Your task to perform on an android device: add a label to a message in the gmail app Image 0: 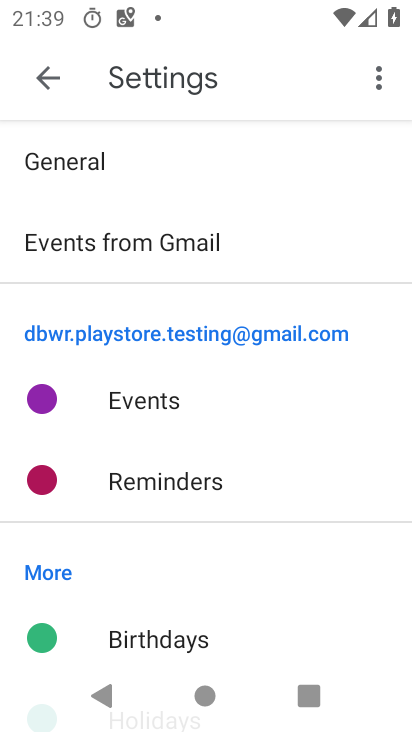
Step 0: press home button
Your task to perform on an android device: add a label to a message in the gmail app Image 1: 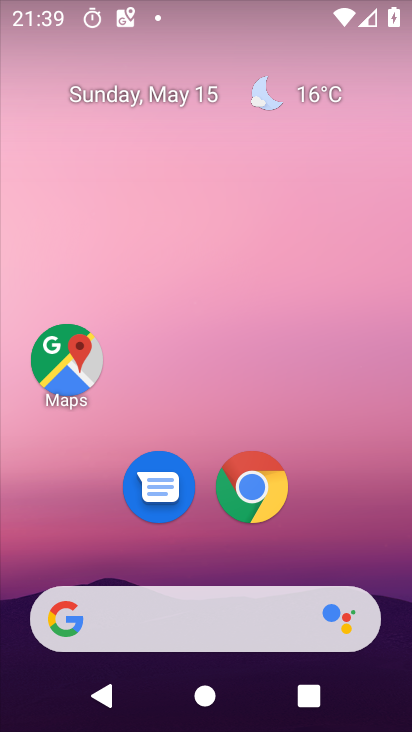
Step 1: drag from (388, 620) to (350, 264)
Your task to perform on an android device: add a label to a message in the gmail app Image 2: 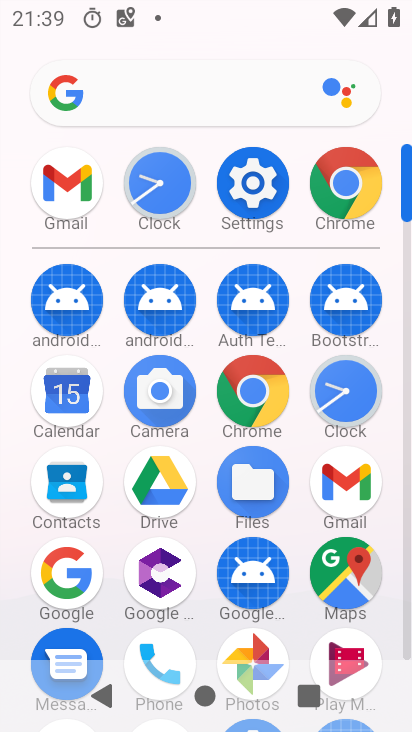
Step 2: click (342, 489)
Your task to perform on an android device: add a label to a message in the gmail app Image 3: 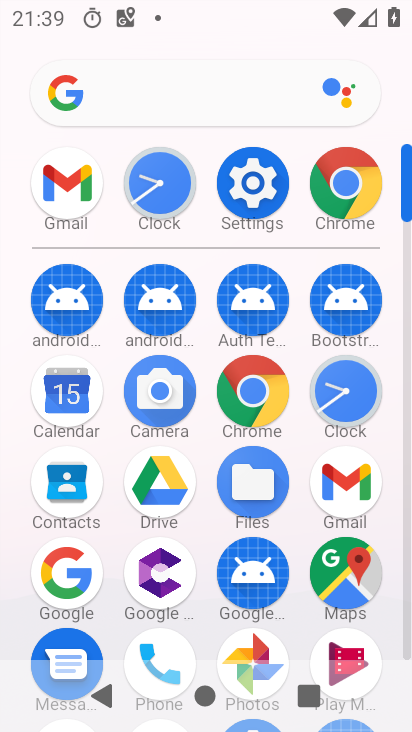
Step 3: click (338, 483)
Your task to perform on an android device: add a label to a message in the gmail app Image 4: 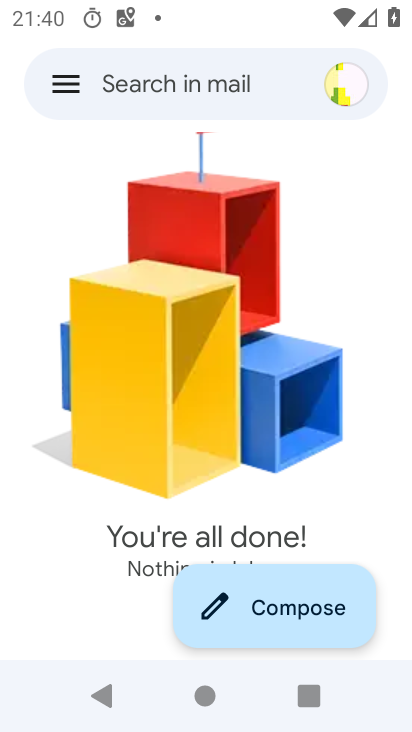
Step 4: click (69, 81)
Your task to perform on an android device: add a label to a message in the gmail app Image 5: 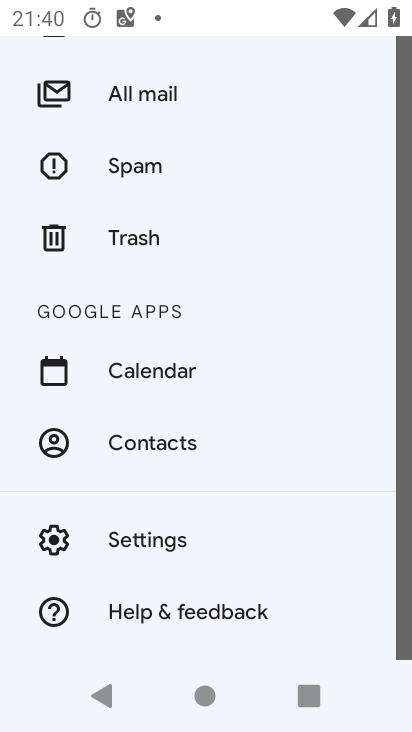
Step 5: click (114, 83)
Your task to perform on an android device: add a label to a message in the gmail app Image 6: 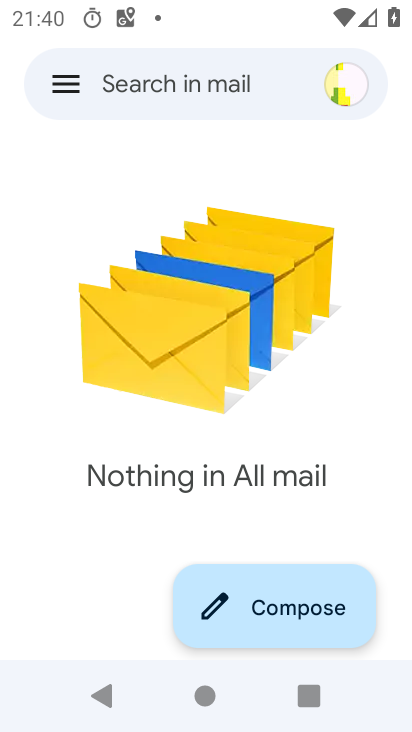
Step 6: click (68, 82)
Your task to perform on an android device: add a label to a message in the gmail app Image 7: 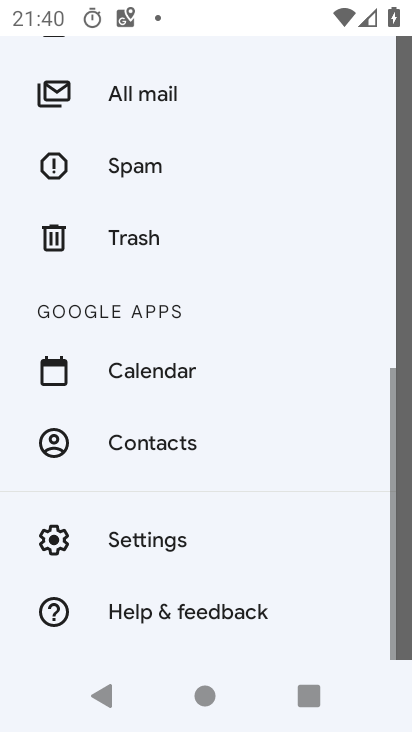
Step 7: drag from (318, 254) to (328, 555)
Your task to perform on an android device: add a label to a message in the gmail app Image 8: 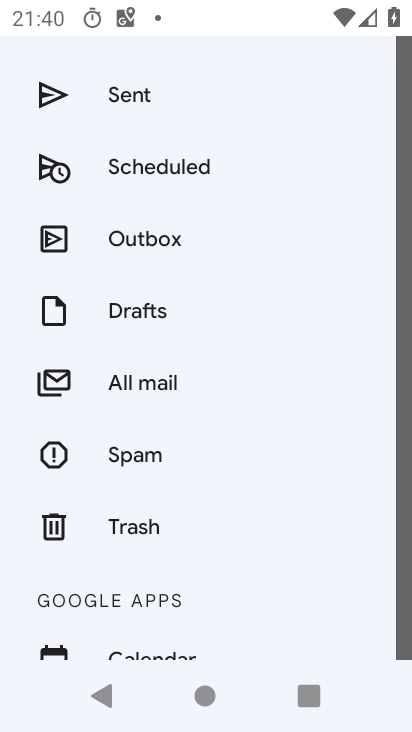
Step 8: drag from (269, 172) to (300, 492)
Your task to perform on an android device: add a label to a message in the gmail app Image 9: 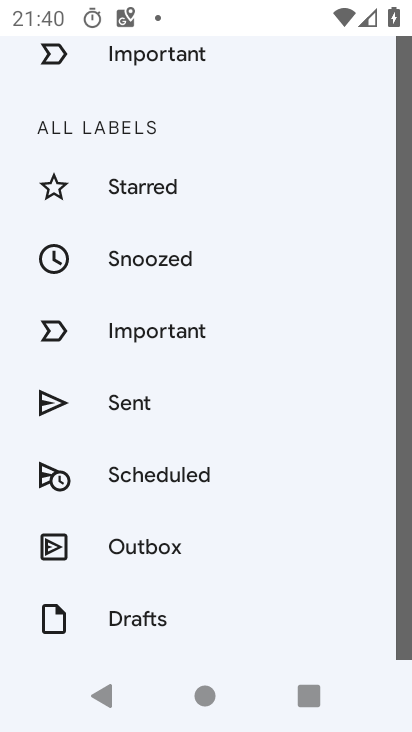
Step 9: drag from (286, 188) to (318, 447)
Your task to perform on an android device: add a label to a message in the gmail app Image 10: 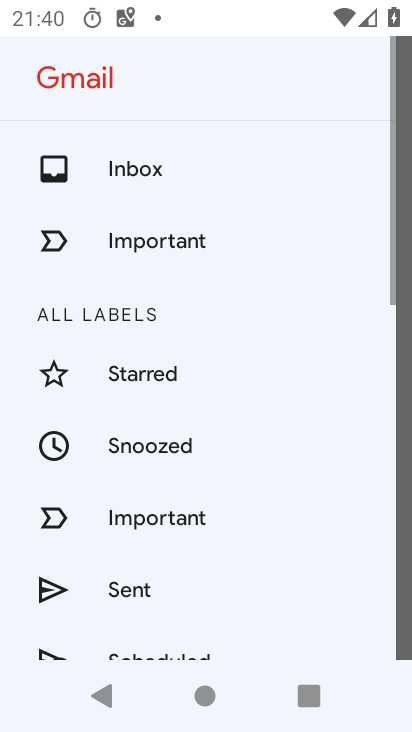
Step 10: click (88, 158)
Your task to perform on an android device: add a label to a message in the gmail app Image 11: 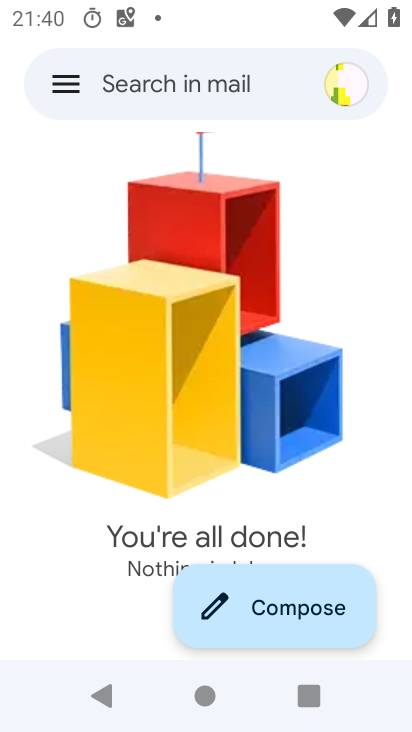
Step 11: task complete